Your task to perform on an android device: Go to wifi settings Image 0: 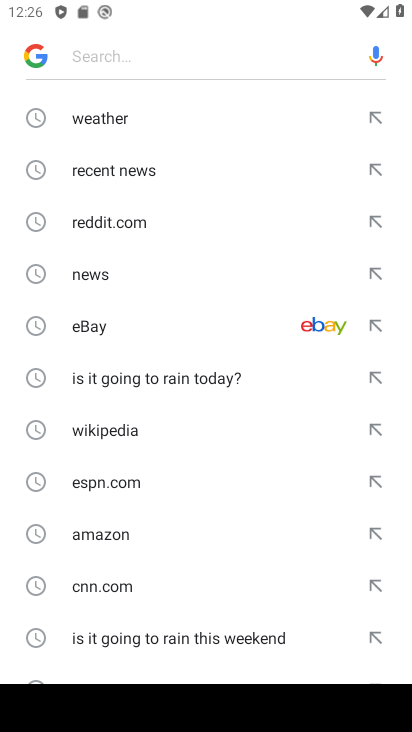
Step 0: press back button
Your task to perform on an android device: Go to wifi settings Image 1: 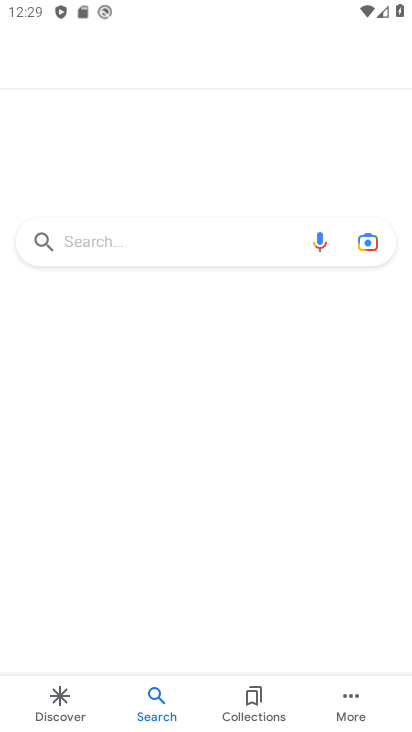
Step 1: press back button
Your task to perform on an android device: Go to wifi settings Image 2: 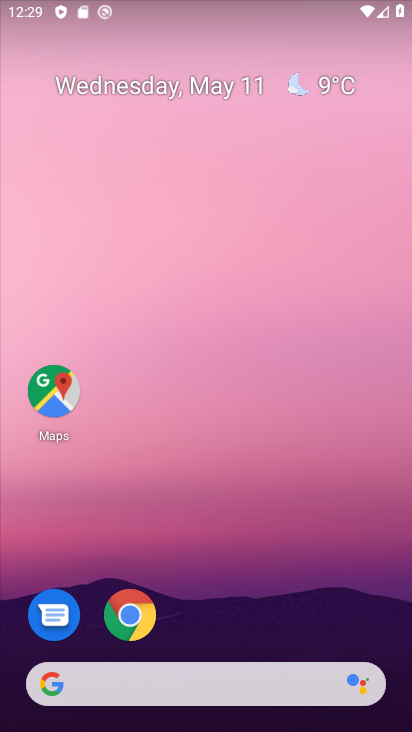
Step 2: drag from (260, 533) to (333, 92)
Your task to perform on an android device: Go to wifi settings Image 3: 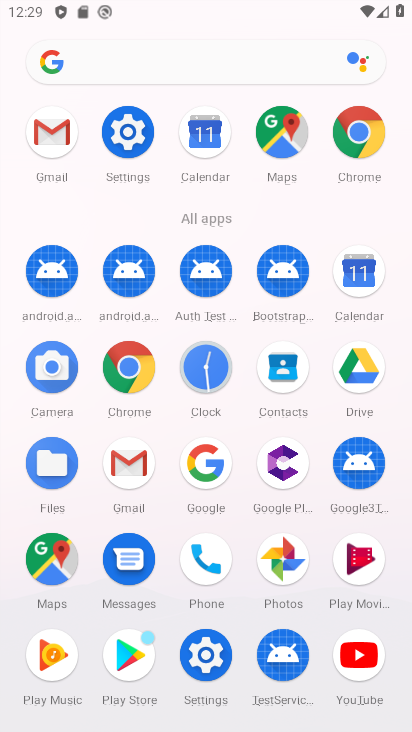
Step 3: click (127, 134)
Your task to perform on an android device: Go to wifi settings Image 4: 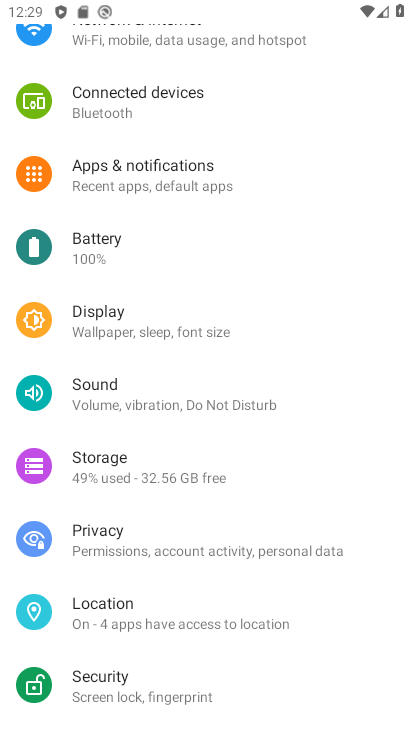
Step 4: drag from (153, 144) to (168, 617)
Your task to perform on an android device: Go to wifi settings Image 5: 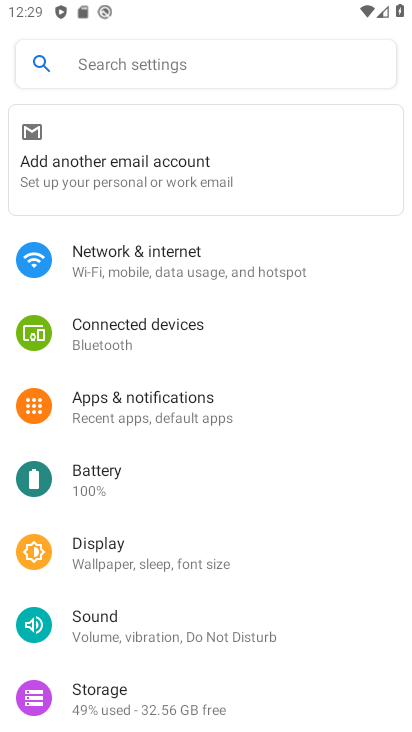
Step 5: click (195, 274)
Your task to perform on an android device: Go to wifi settings Image 6: 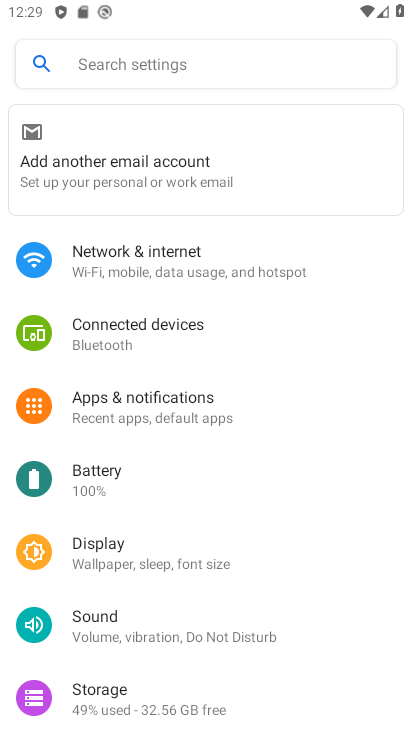
Step 6: task complete